Your task to perform on an android device: turn vacation reply on in the gmail app Image 0: 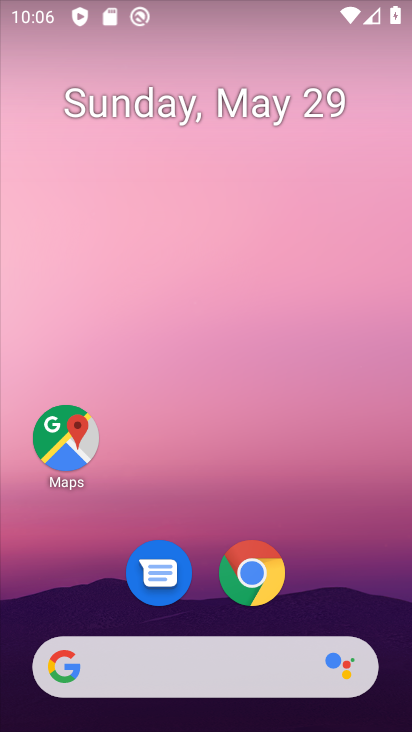
Step 0: drag from (82, 611) to (236, 125)
Your task to perform on an android device: turn vacation reply on in the gmail app Image 1: 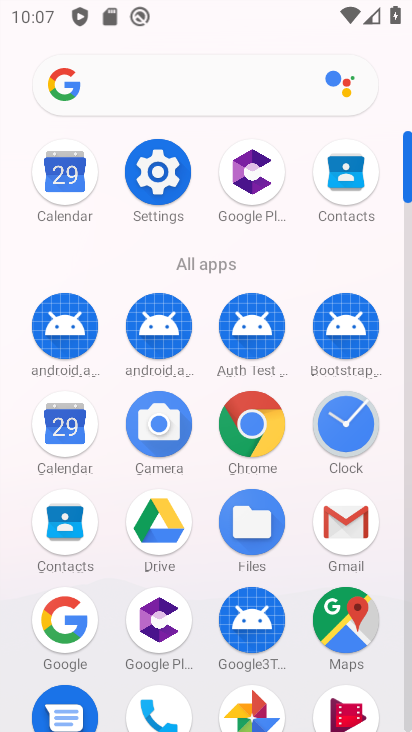
Step 1: click (351, 542)
Your task to perform on an android device: turn vacation reply on in the gmail app Image 2: 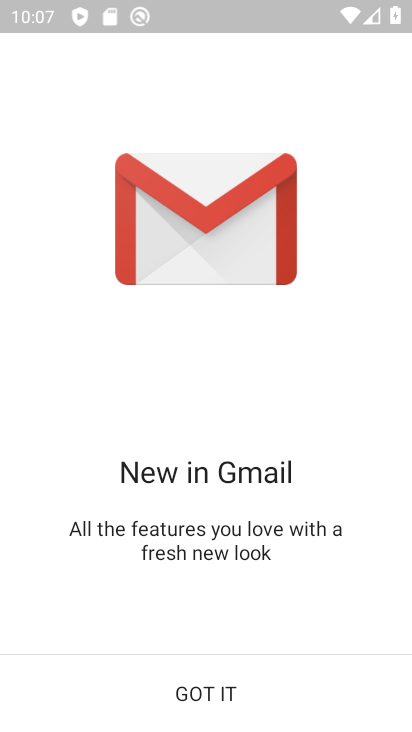
Step 2: click (208, 684)
Your task to perform on an android device: turn vacation reply on in the gmail app Image 3: 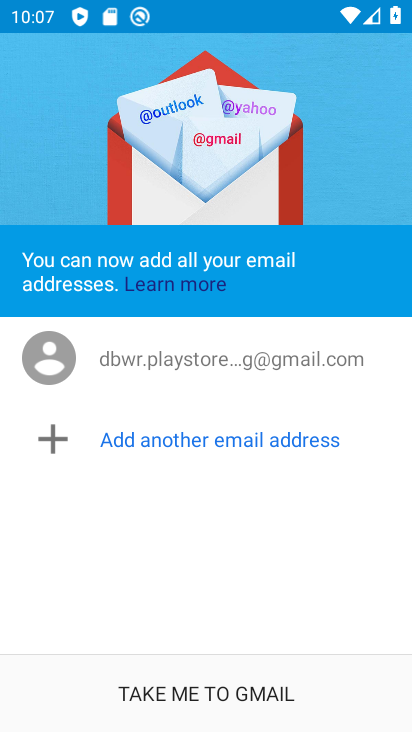
Step 3: click (265, 694)
Your task to perform on an android device: turn vacation reply on in the gmail app Image 4: 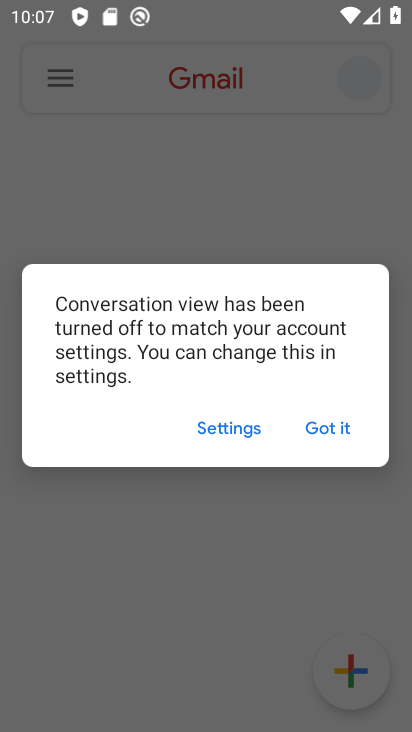
Step 4: click (337, 432)
Your task to perform on an android device: turn vacation reply on in the gmail app Image 5: 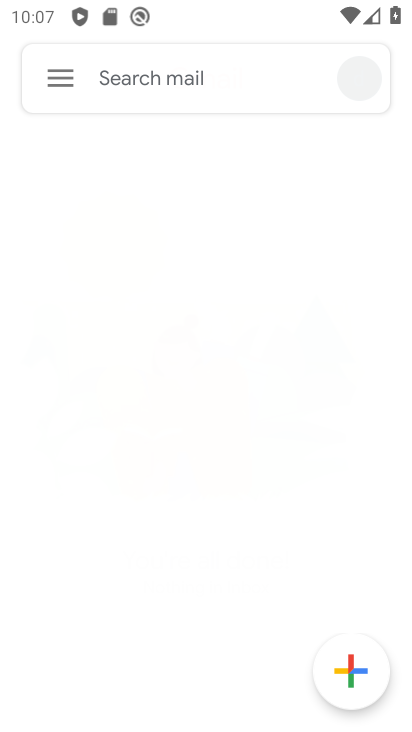
Step 5: click (79, 83)
Your task to perform on an android device: turn vacation reply on in the gmail app Image 6: 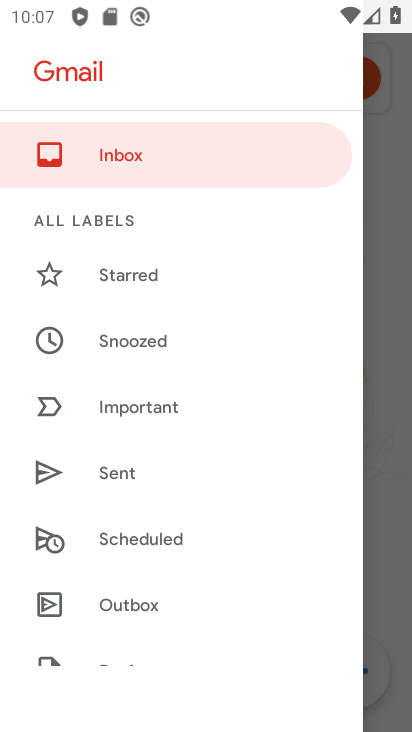
Step 6: drag from (192, 552) to (302, 142)
Your task to perform on an android device: turn vacation reply on in the gmail app Image 7: 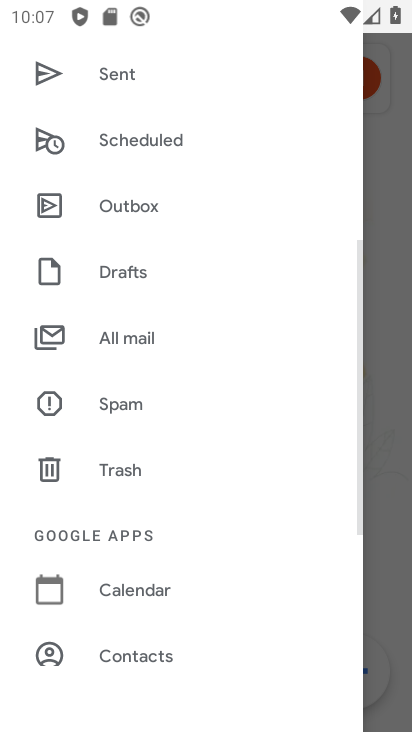
Step 7: drag from (207, 604) to (224, 238)
Your task to perform on an android device: turn vacation reply on in the gmail app Image 8: 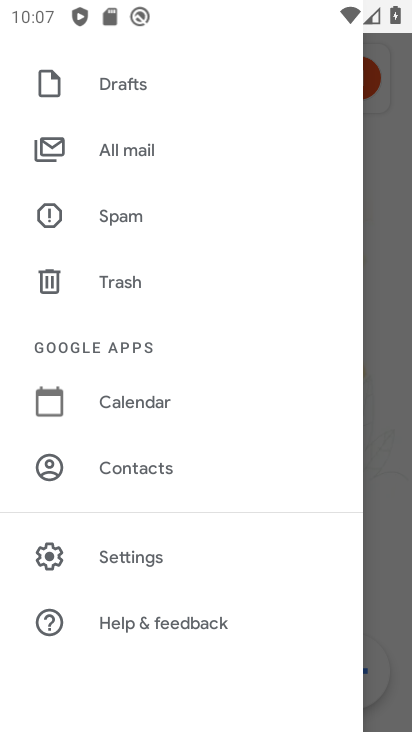
Step 8: click (171, 562)
Your task to perform on an android device: turn vacation reply on in the gmail app Image 9: 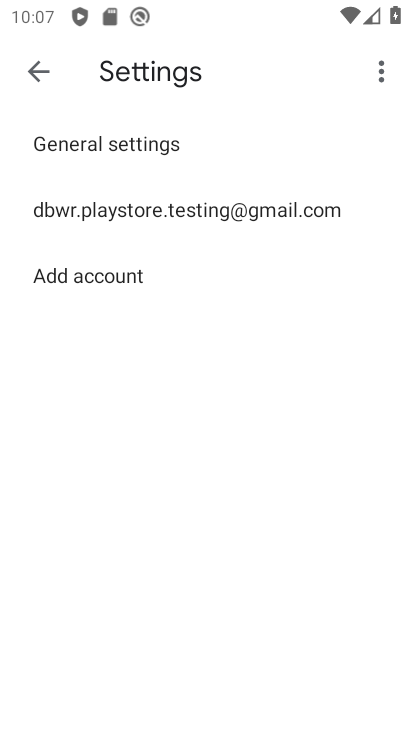
Step 9: click (265, 212)
Your task to perform on an android device: turn vacation reply on in the gmail app Image 10: 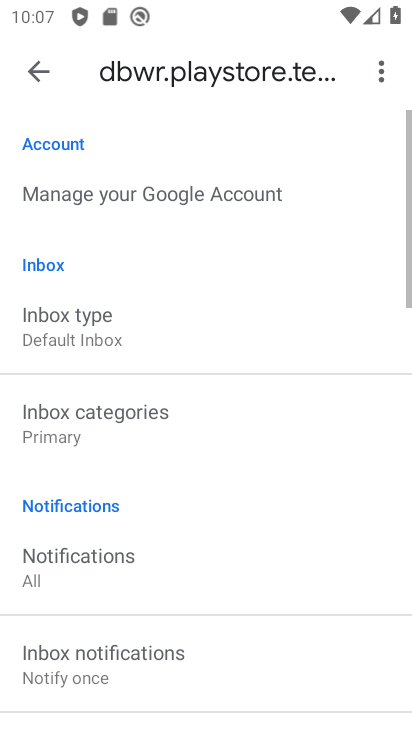
Step 10: drag from (183, 595) to (260, 240)
Your task to perform on an android device: turn vacation reply on in the gmail app Image 11: 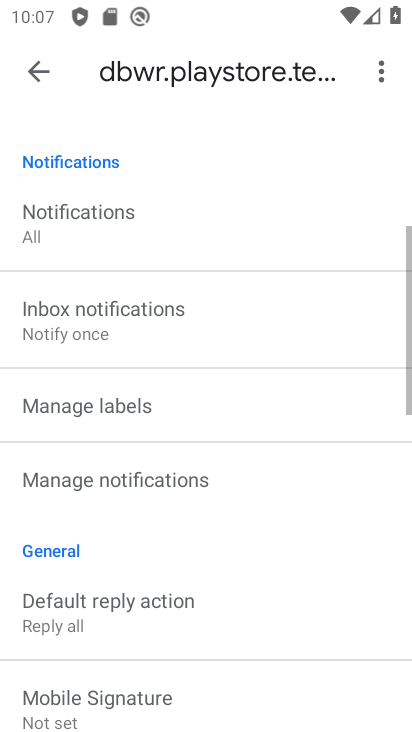
Step 11: drag from (199, 652) to (265, 285)
Your task to perform on an android device: turn vacation reply on in the gmail app Image 12: 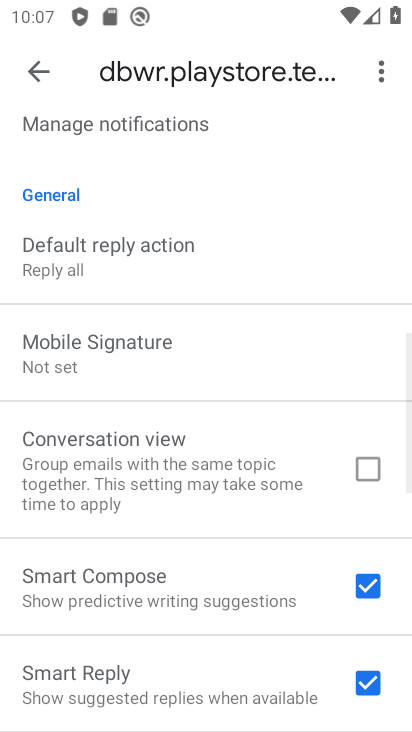
Step 12: drag from (143, 670) to (212, 341)
Your task to perform on an android device: turn vacation reply on in the gmail app Image 13: 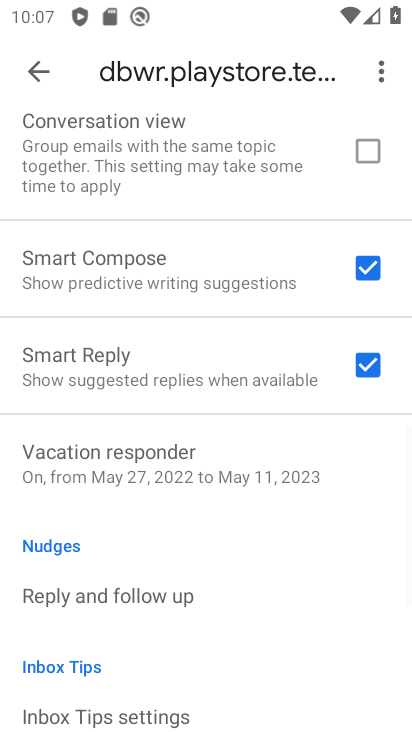
Step 13: click (192, 484)
Your task to perform on an android device: turn vacation reply on in the gmail app Image 14: 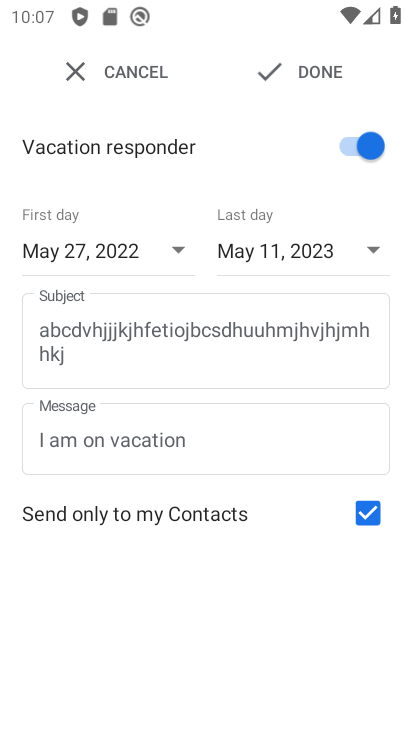
Step 14: task complete